Your task to perform on an android device: Look up the best selling books on Goodreads. Image 0: 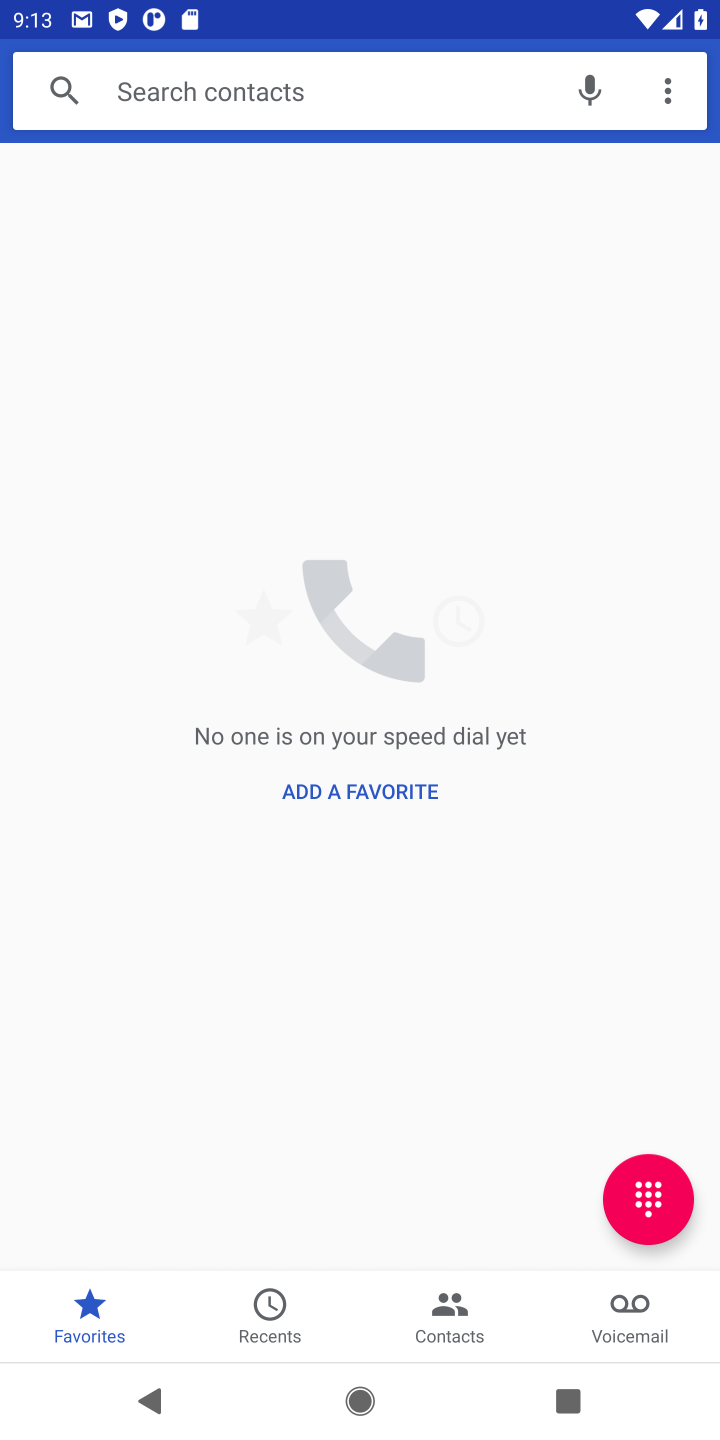
Step 0: press home button
Your task to perform on an android device: Look up the best selling books on Goodreads. Image 1: 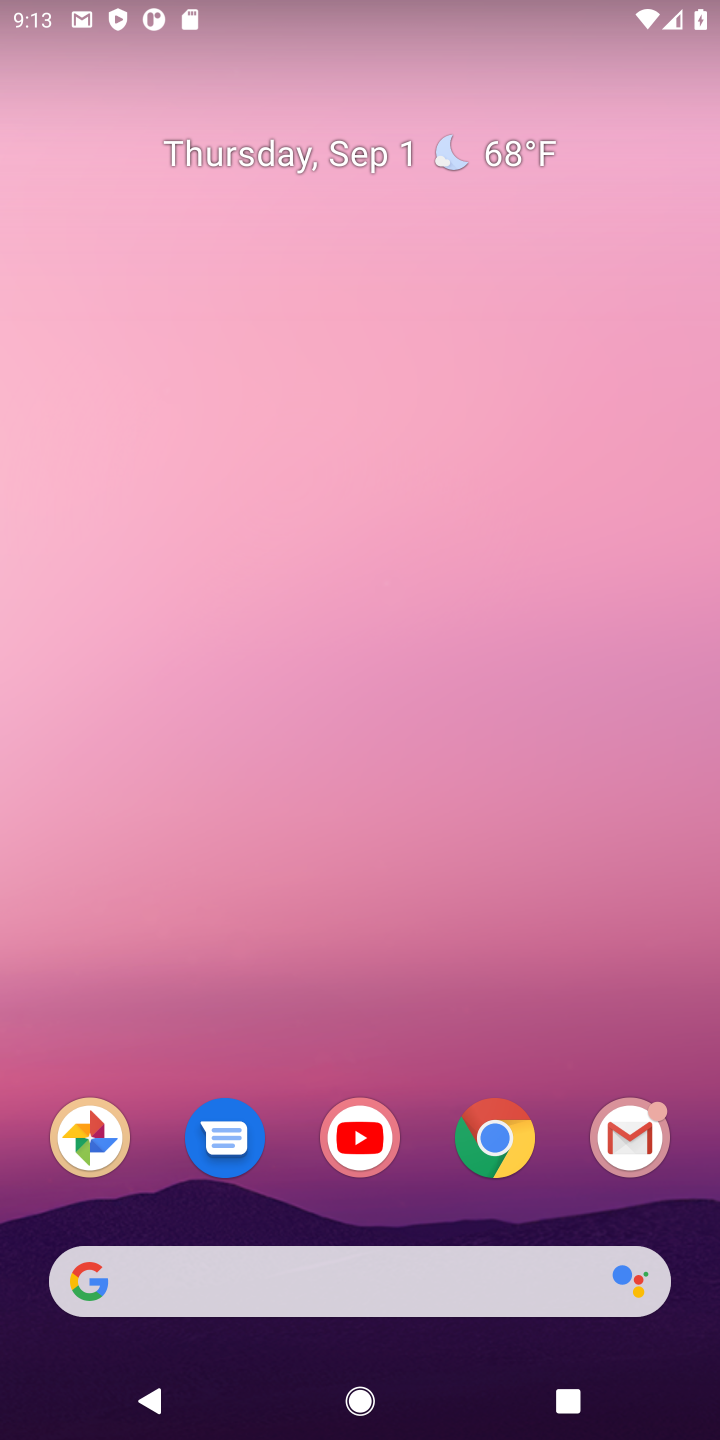
Step 1: click (474, 1160)
Your task to perform on an android device: Look up the best selling books on Goodreads. Image 2: 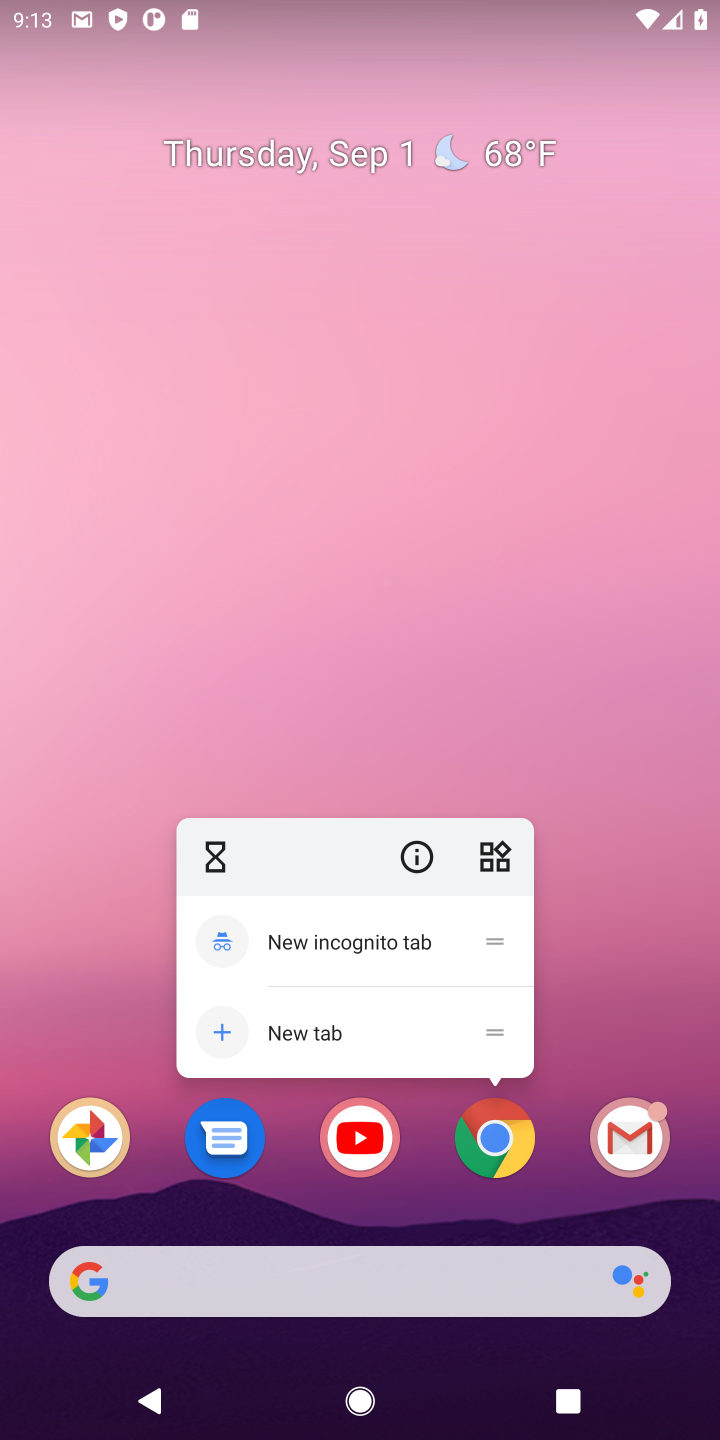
Step 2: click (374, 1018)
Your task to perform on an android device: Look up the best selling books on Goodreads. Image 3: 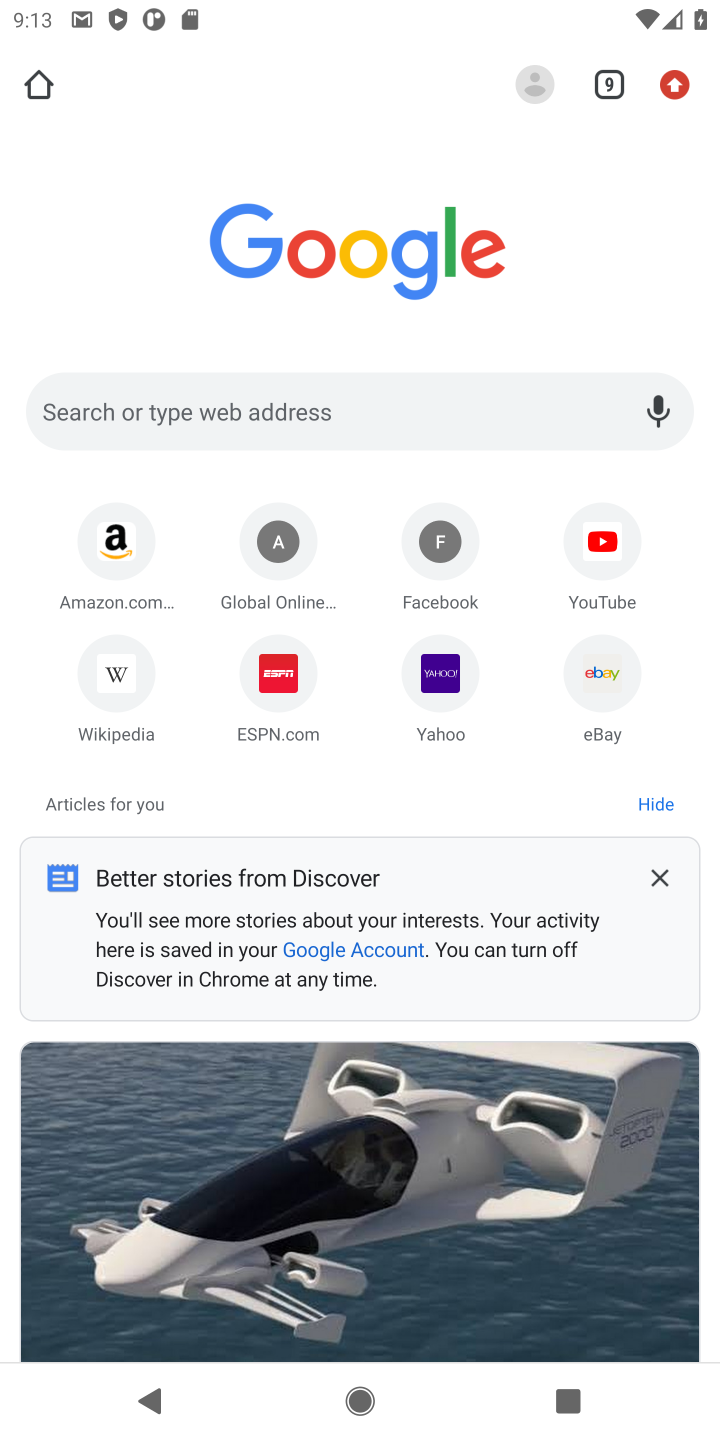
Step 3: click (367, 388)
Your task to perform on an android device: Look up the best selling books on Goodreads. Image 4: 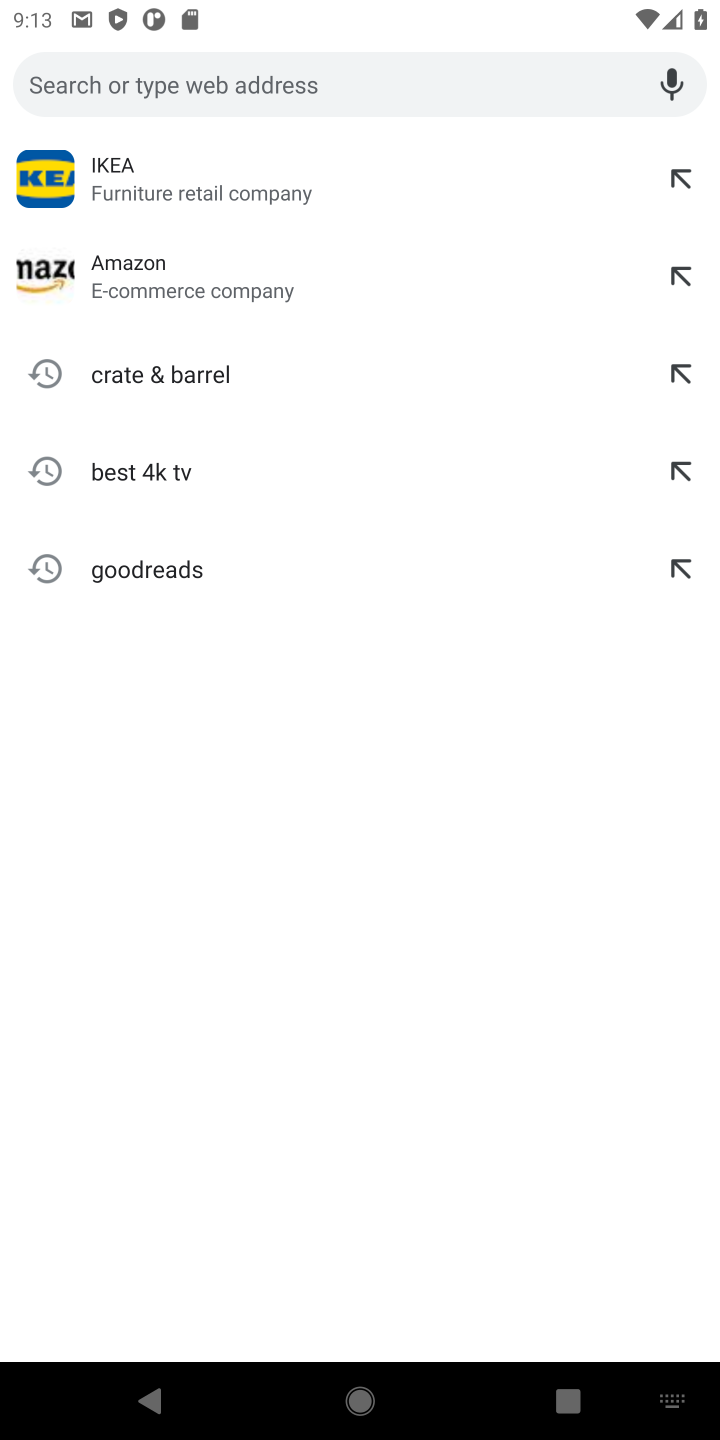
Step 4: type "Goodreads."
Your task to perform on an android device: Look up the best selling books on Goodreads. Image 5: 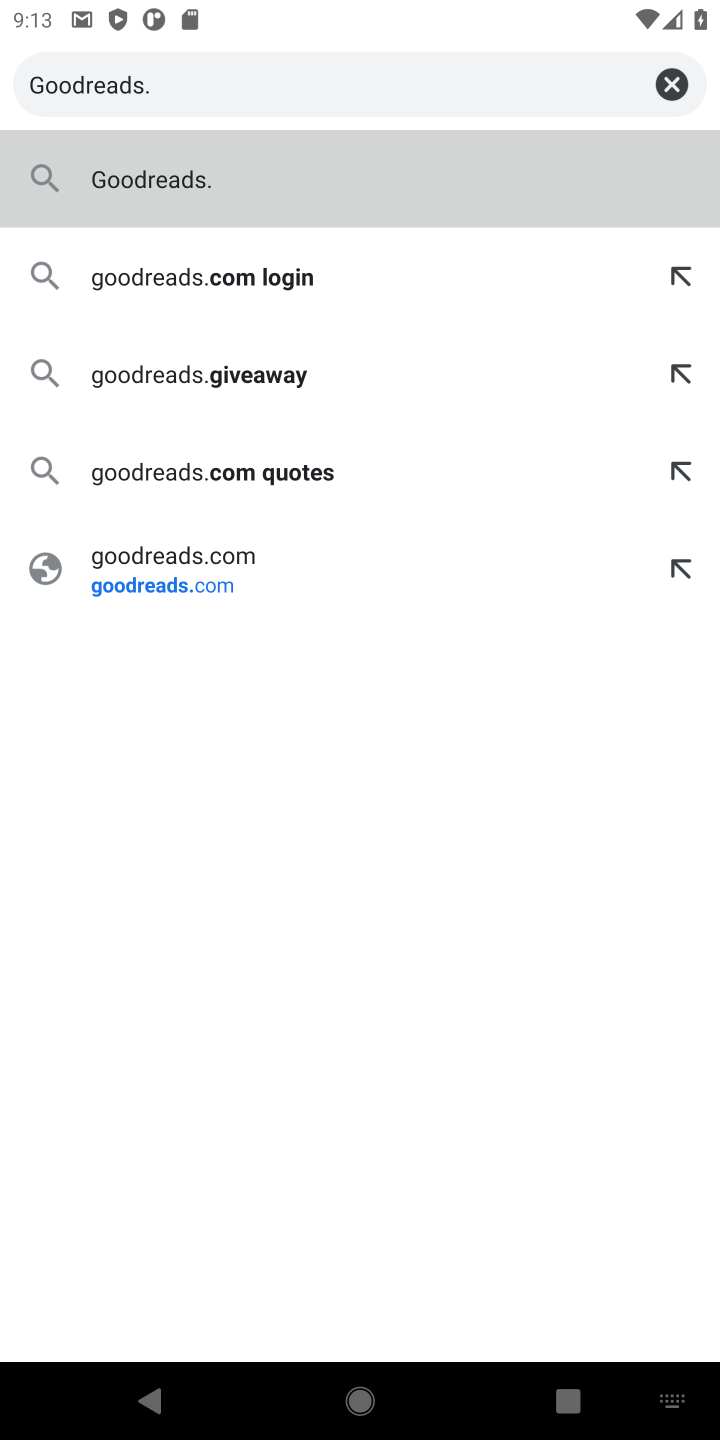
Step 5: click (155, 581)
Your task to perform on an android device: Look up the best selling books on Goodreads. Image 6: 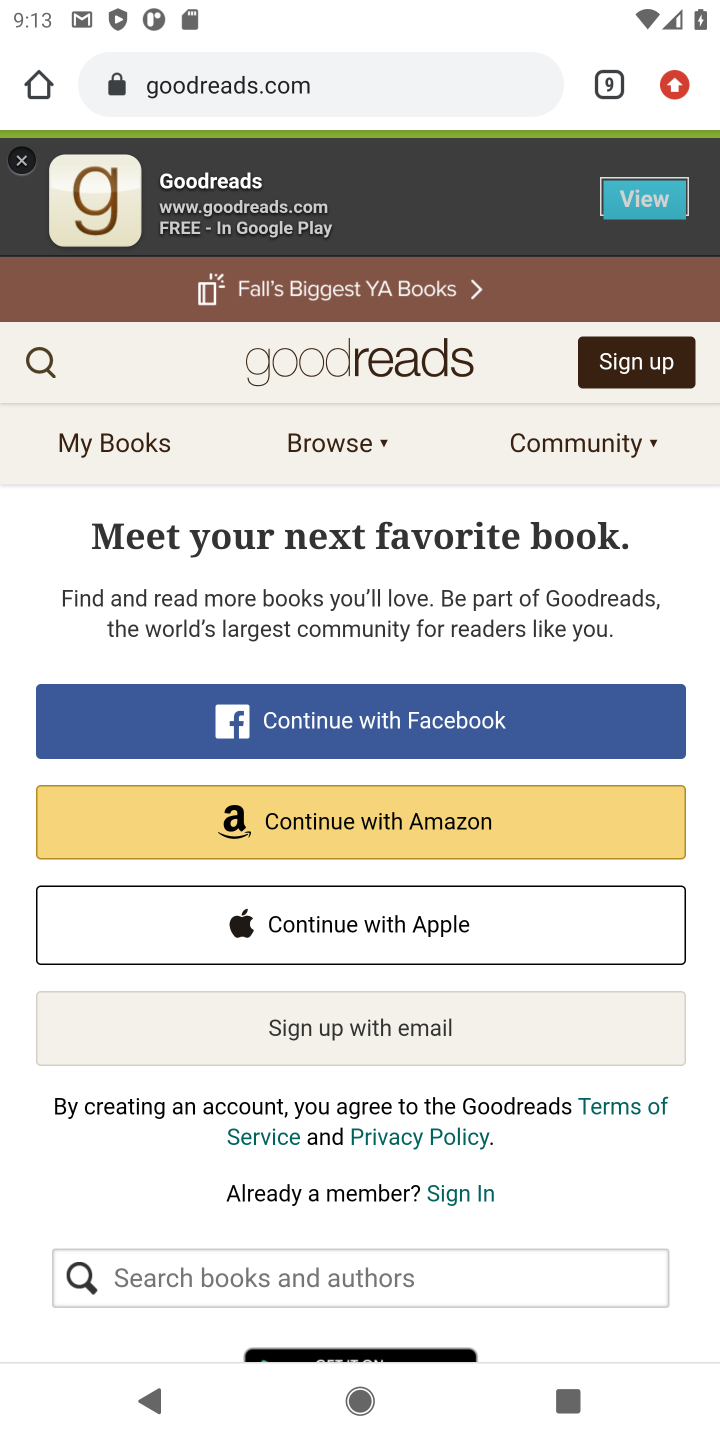
Step 6: click (40, 361)
Your task to perform on an android device: Look up the best selling books on Goodreads. Image 7: 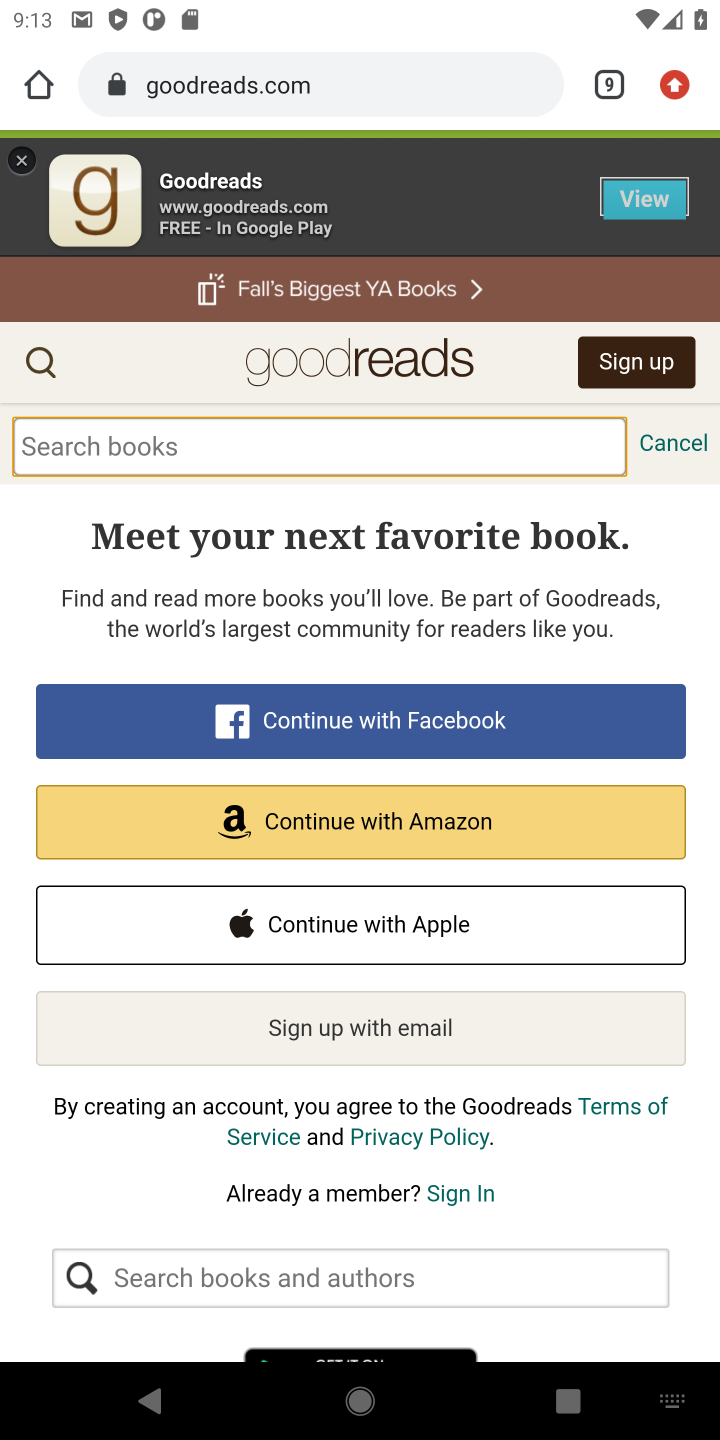
Step 7: click (72, 441)
Your task to perform on an android device: Look up the best selling books on Goodreads. Image 8: 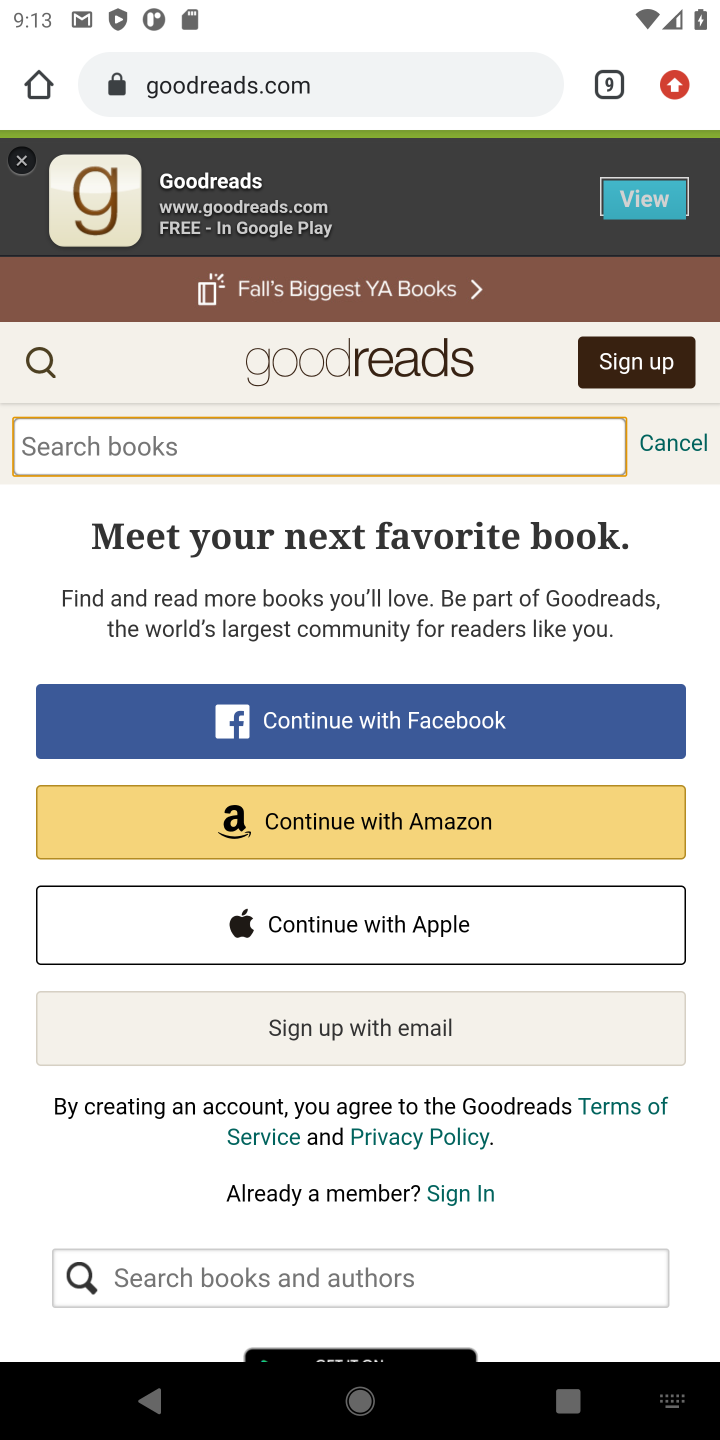
Step 8: type "best selling books"
Your task to perform on an android device: Look up the best selling books on Goodreads. Image 9: 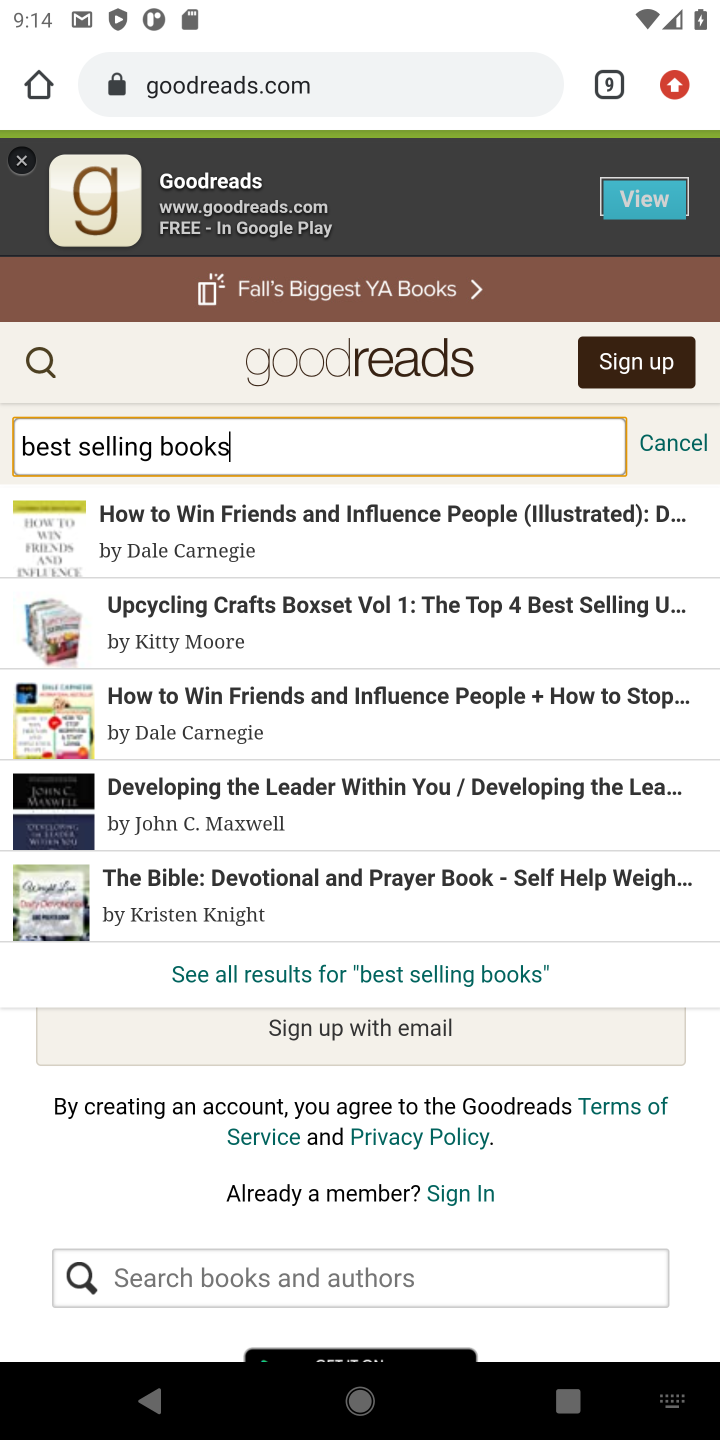
Step 9: click (374, 969)
Your task to perform on an android device: Look up the best selling books on Goodreads. Image 10: 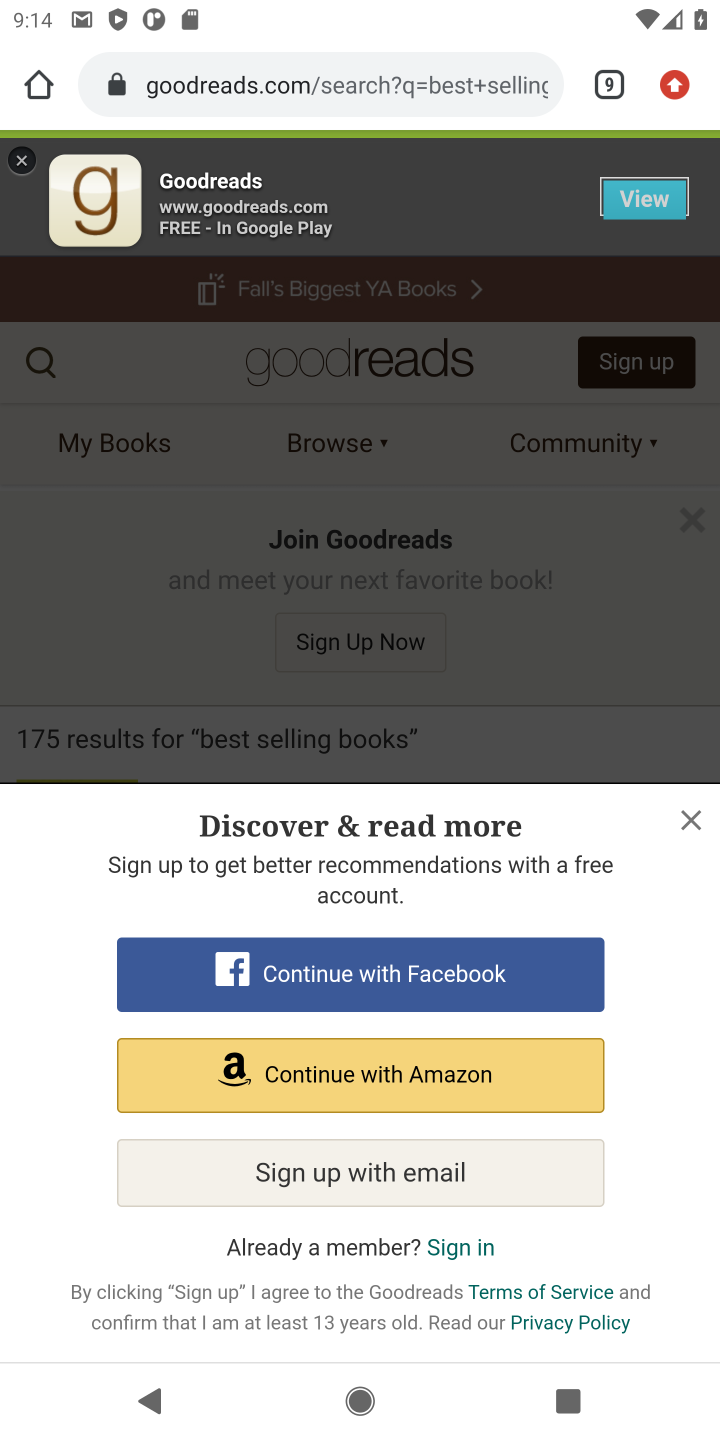
Step 10: click (700, 827)
Your task to perform on an android device: Look up the best selling books on Goodreads. Image 11: 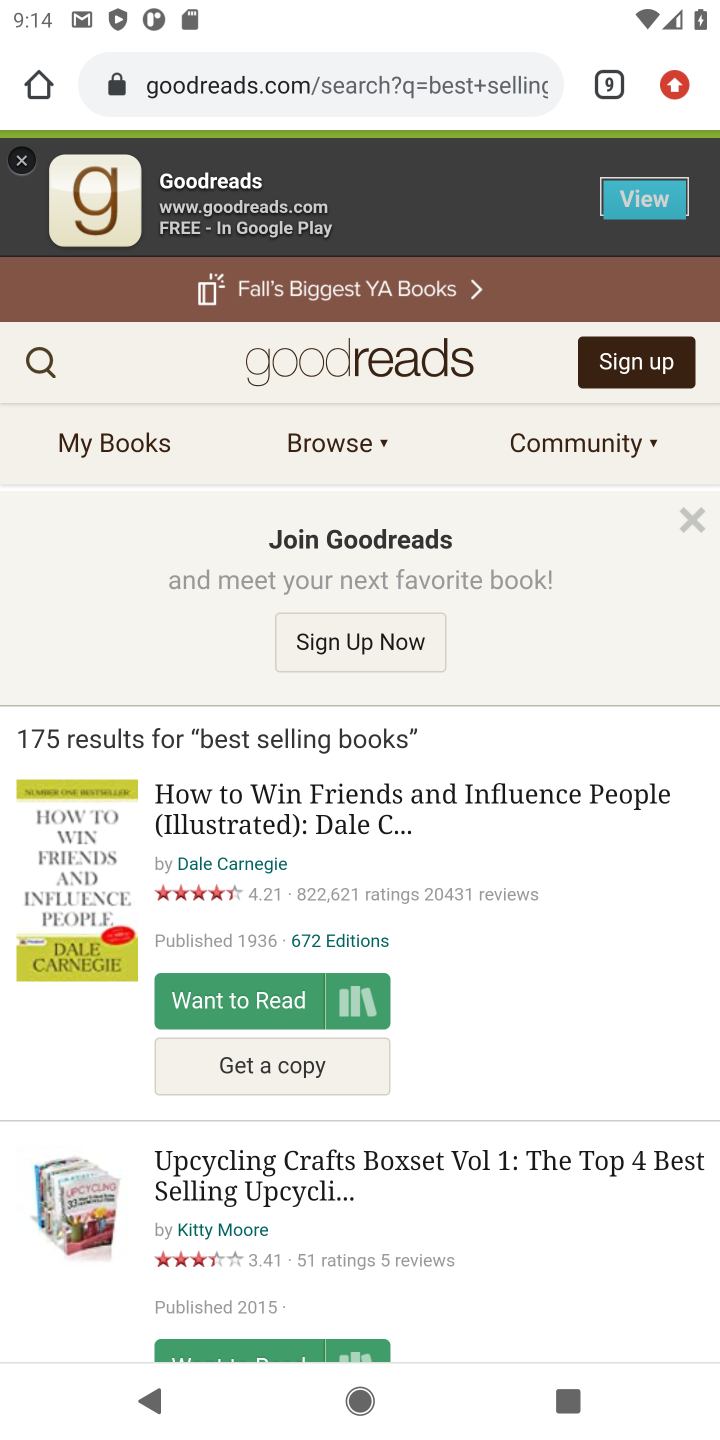
Step 11: task complete